Your task to perform on an android device: turn on notifications settings in the gmail app Image 0: 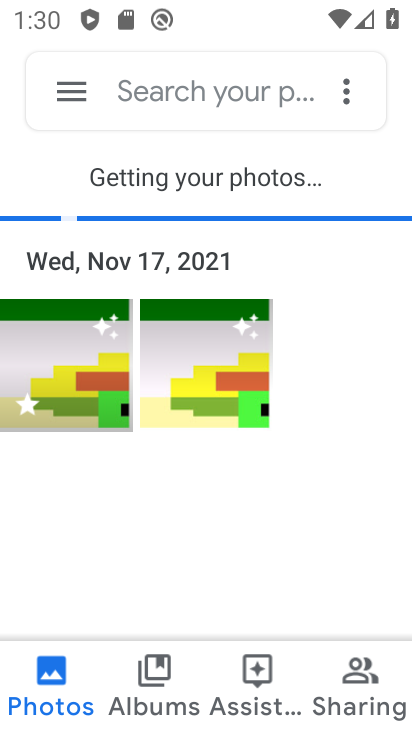
Step 0: press back button
Your task to perform on an android device: turn on notifications settings in the gmail app Image 1: 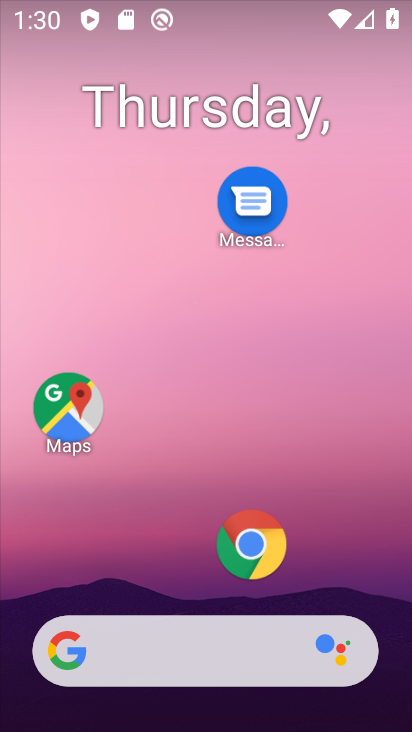
Step 1: drag from (155, 522) to (249, 58)
Your task to perform on an android device: turn on notifications settings in the gmail app Image 2: 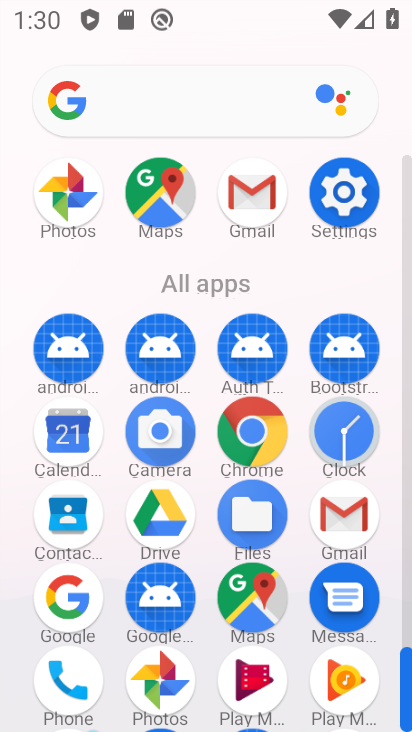
Step 2: click (352, 526)
Your task to perform on an android device: turn on notifications settings in the gmail app Image 3: 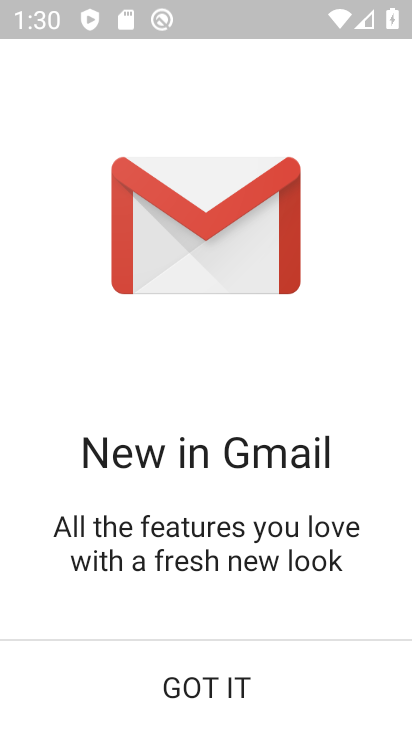
Step 3: click (222, 683)
Your task to perform on an android device: turn on notifications settings in the gmail app Image 4: 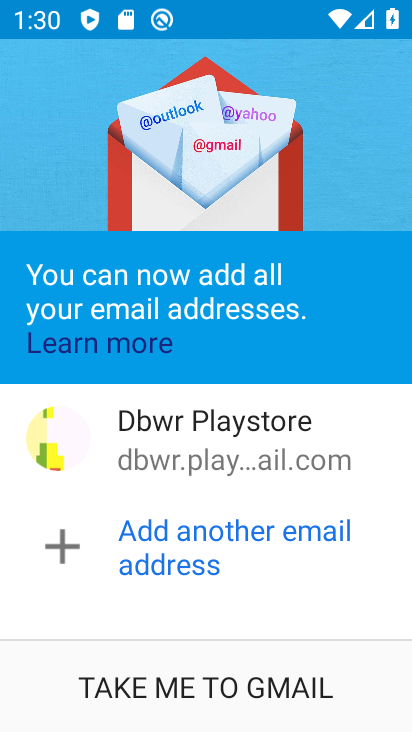
Step 4: click (216, 688)
Your task to perform on an android device: turn on notifications settings in the gmail app Image 5: 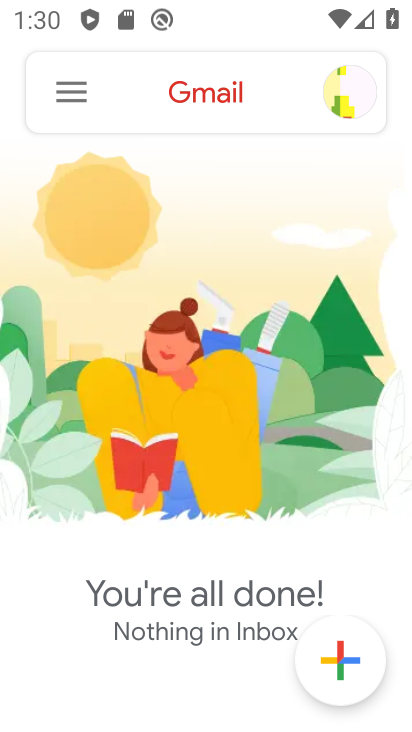
Step 5: click (83, 100)
Your task to perform on an android device: turn on notifications settings in the gmail app Image 6: 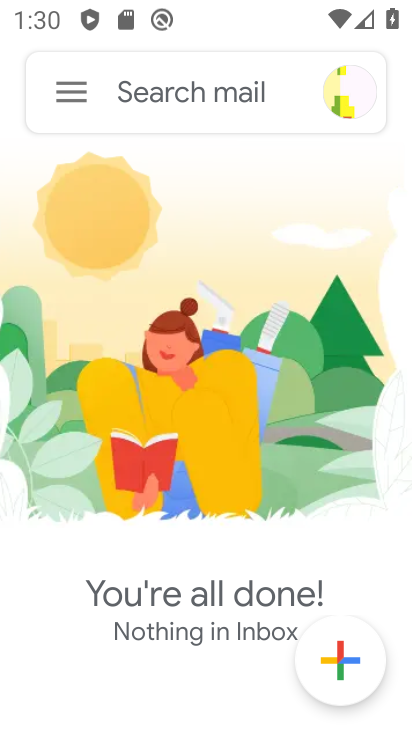
Step 6: click (83, 100)
Your task to perform on an android device: turn on notifications settings in the gmail app Image 7: 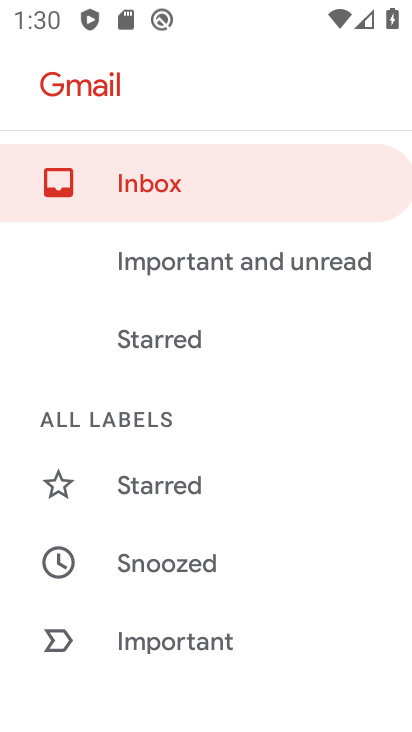
Step 7: drag from (156, 619) to (349, 151)
Your task to perform on an android device: turn on notifications settings in the gmail app Image 8: 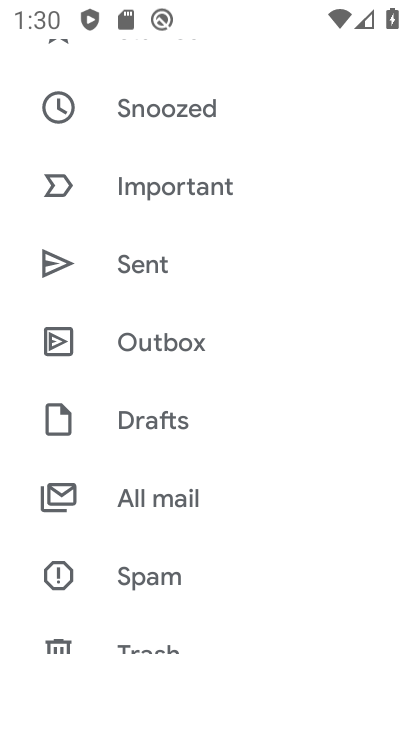
Step 8: drag from (226, 512) to (313, 162)
Your task to perform on an android device: turn on notifications settings in the gmail app Image 9: 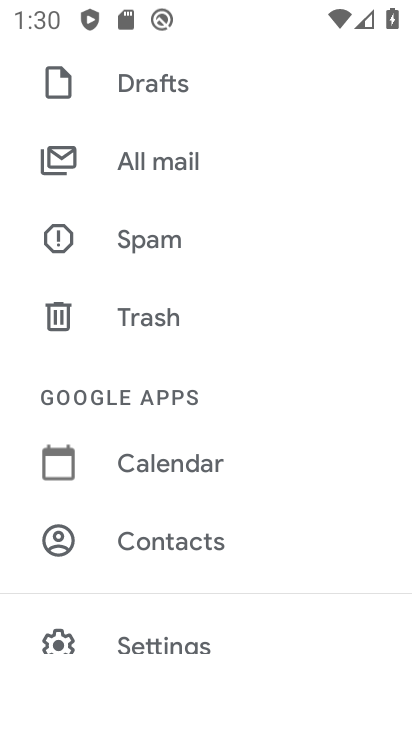
Step 9: drag from (178, 626) to (262, 400)
Your task to perform on an android device: turn on notifications settings in the gmail app Image 10: 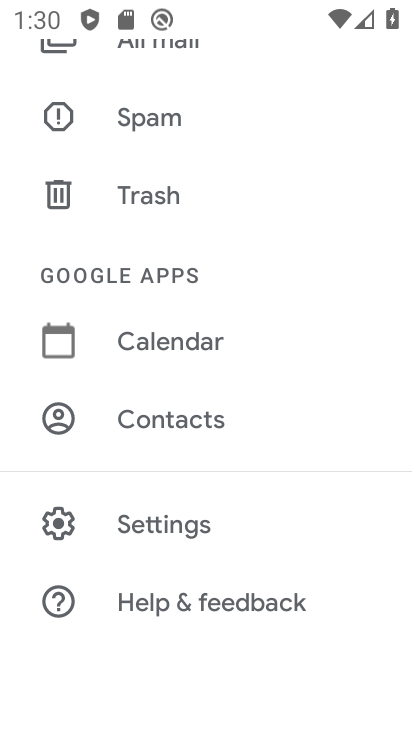
Step 10: click (174, 521)
Your task to perform on an android device: turn on notifications settings in the gmail app Image 11: 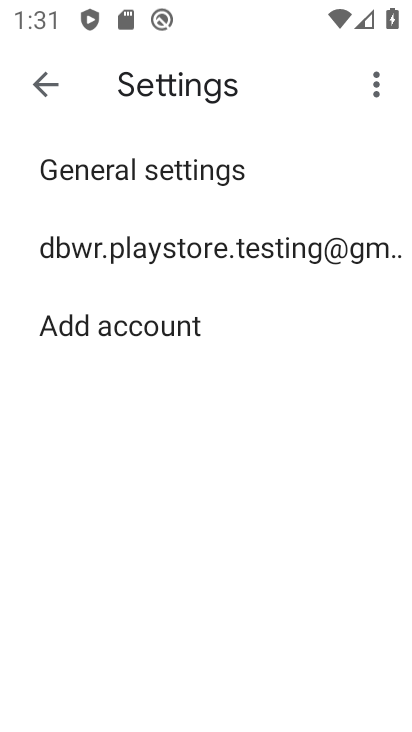
Step 11: click (237, 246)
Your task to perform on an android device: turn on notifications settings in the gmail app Image 12: 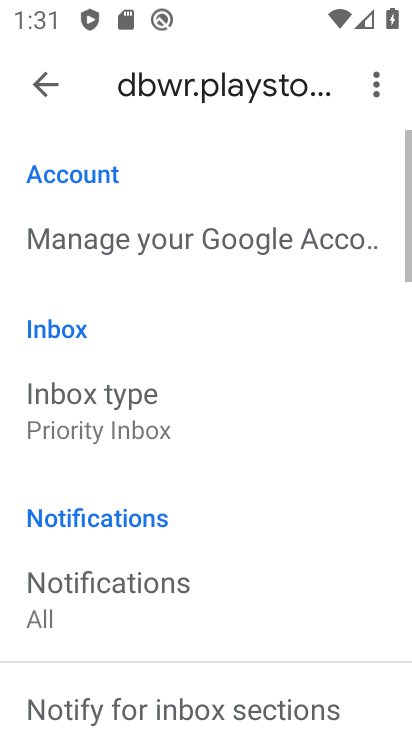
Step 12: drag from (174, 609) to (304, 215)
Your task to perform on an android device: turn on notifications settings in the gmail app Image 13: 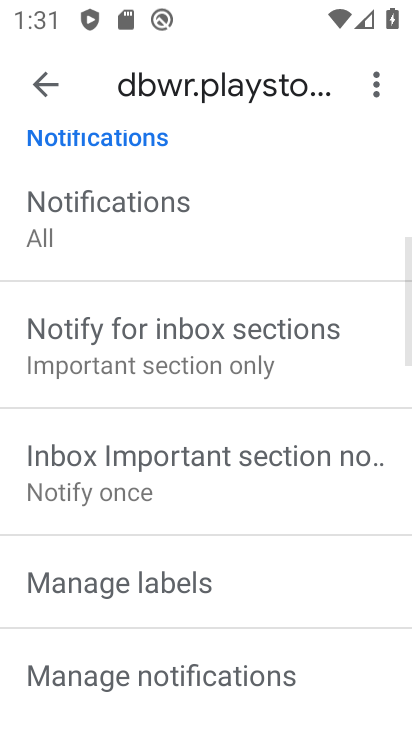
Step 13: drag from (152, 641) to (244, 388)
Your task to perform on an android device: turn on notifications settings in the gmail app Image 14: 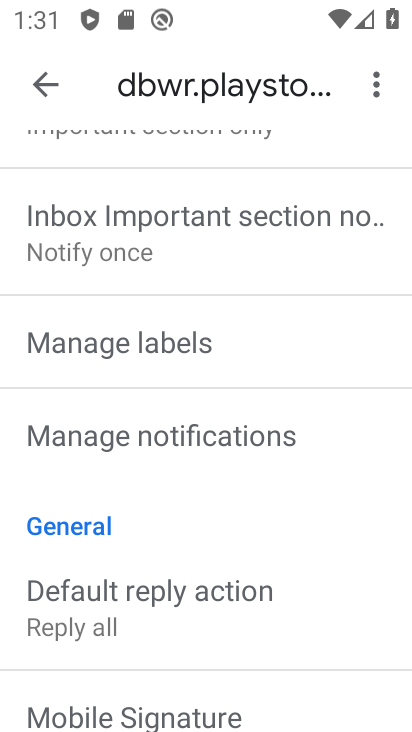
Step 14: click (269, 440)
Your task to perform on an android device: turn on notifications settings in the gmail app Image 15: 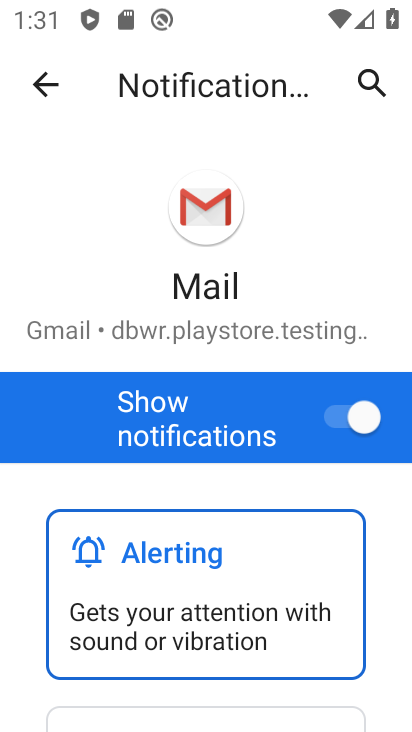
Step 15: task complete